Your task to perform on an android device: open a new tab in the chrome app Image 0: 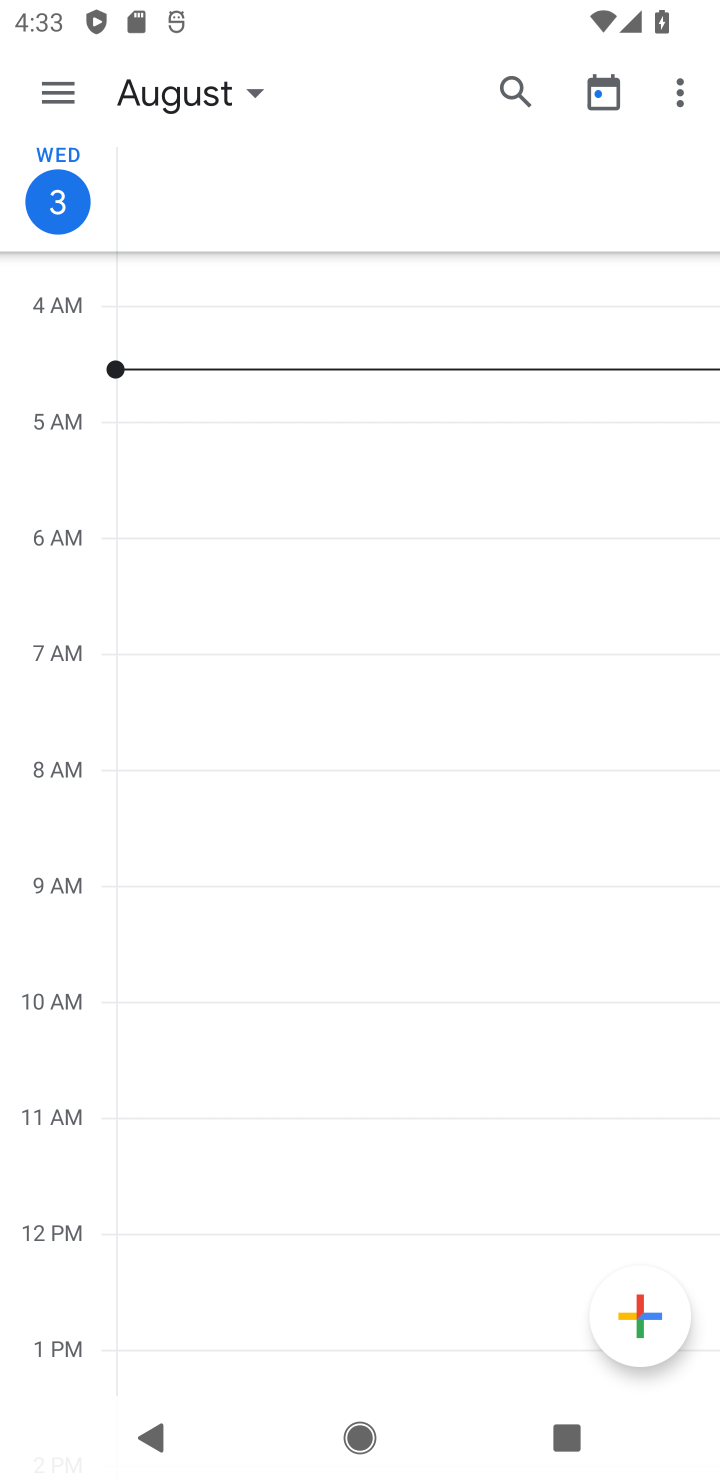
Step 0: press home button
Your task to perform on an android device: open a new tab in the chrome app Image 1: 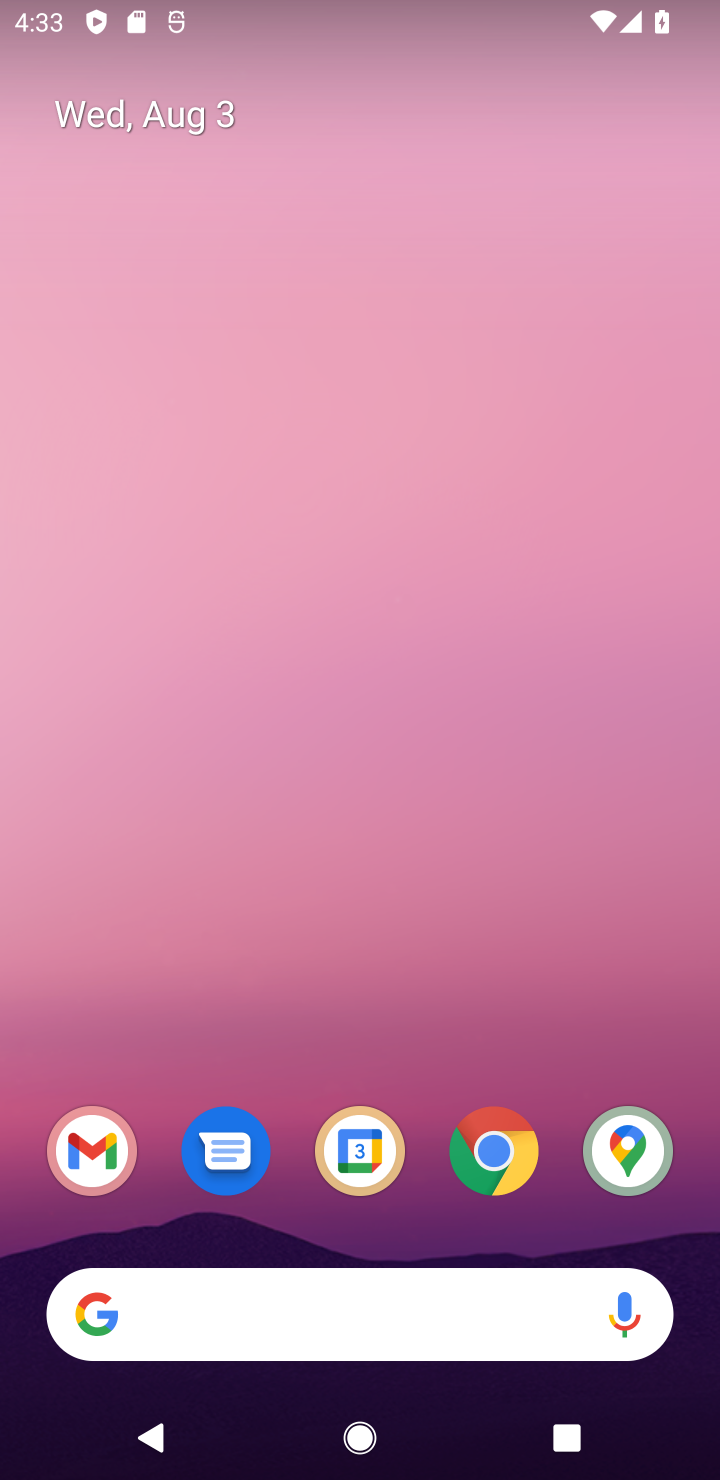
Step 1: click (476, 1153)
Your task to perform on an android device: open a new tab in the chrome app Image 2: 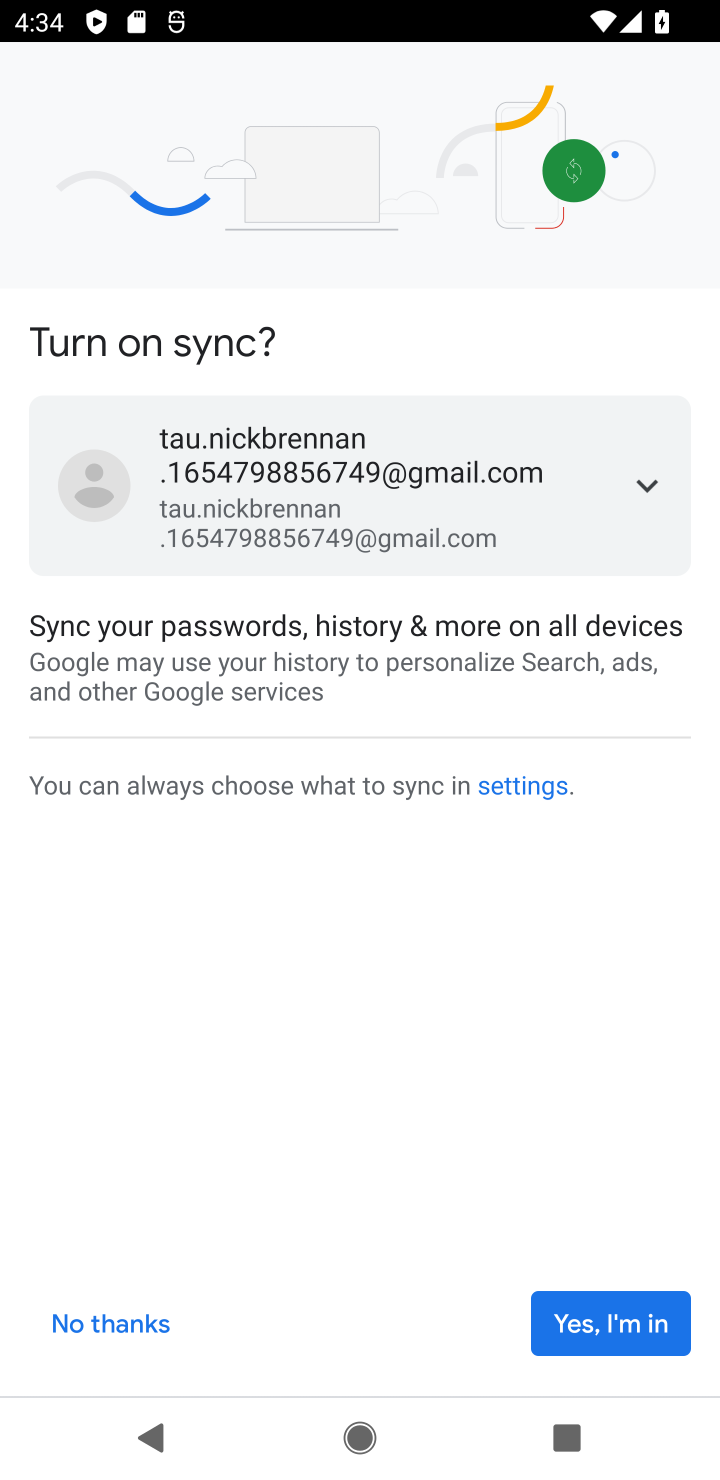
Step 2: click (590, 1304)
Your task to perform on an android device: open a new tab in the chrome app Image 3: 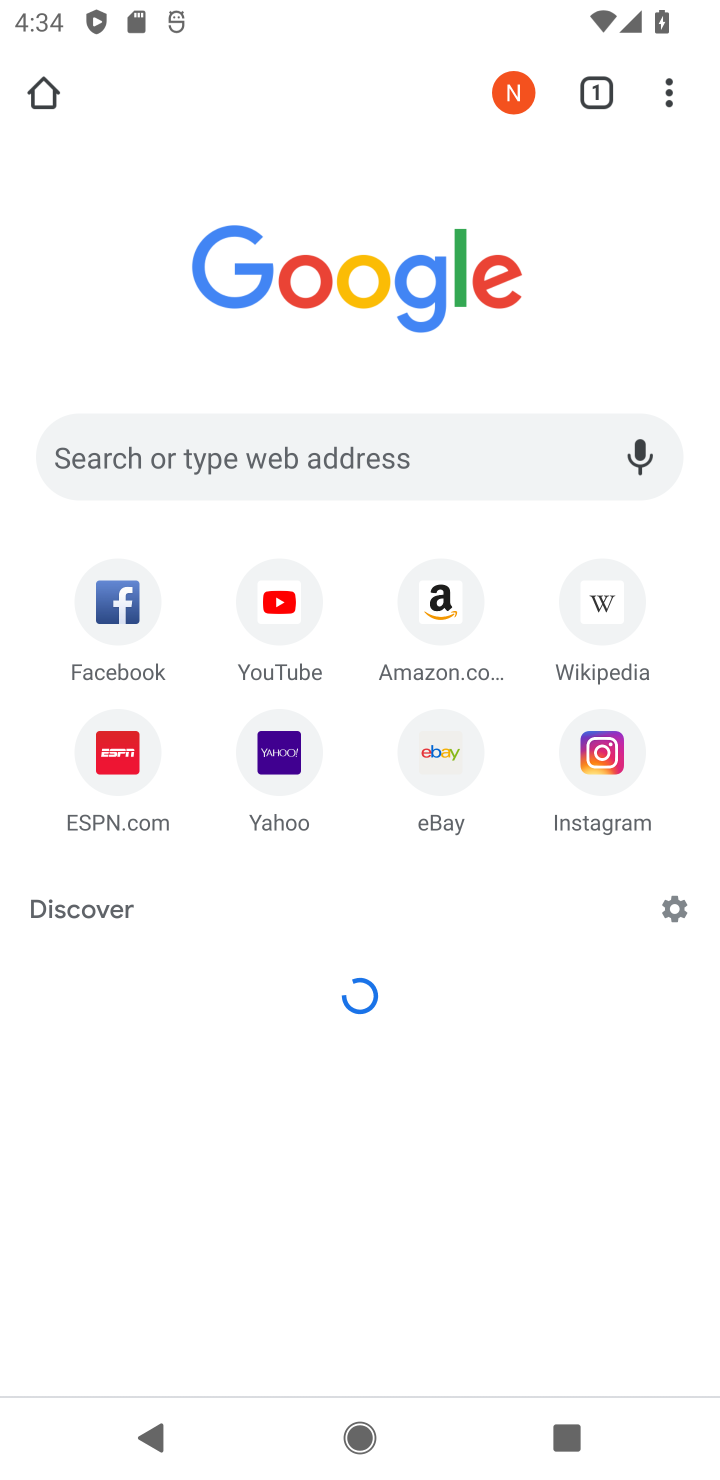
Step 3: click (660, 94)
Your task to perform on an android device: open a new tab in the chrome app Image 4: 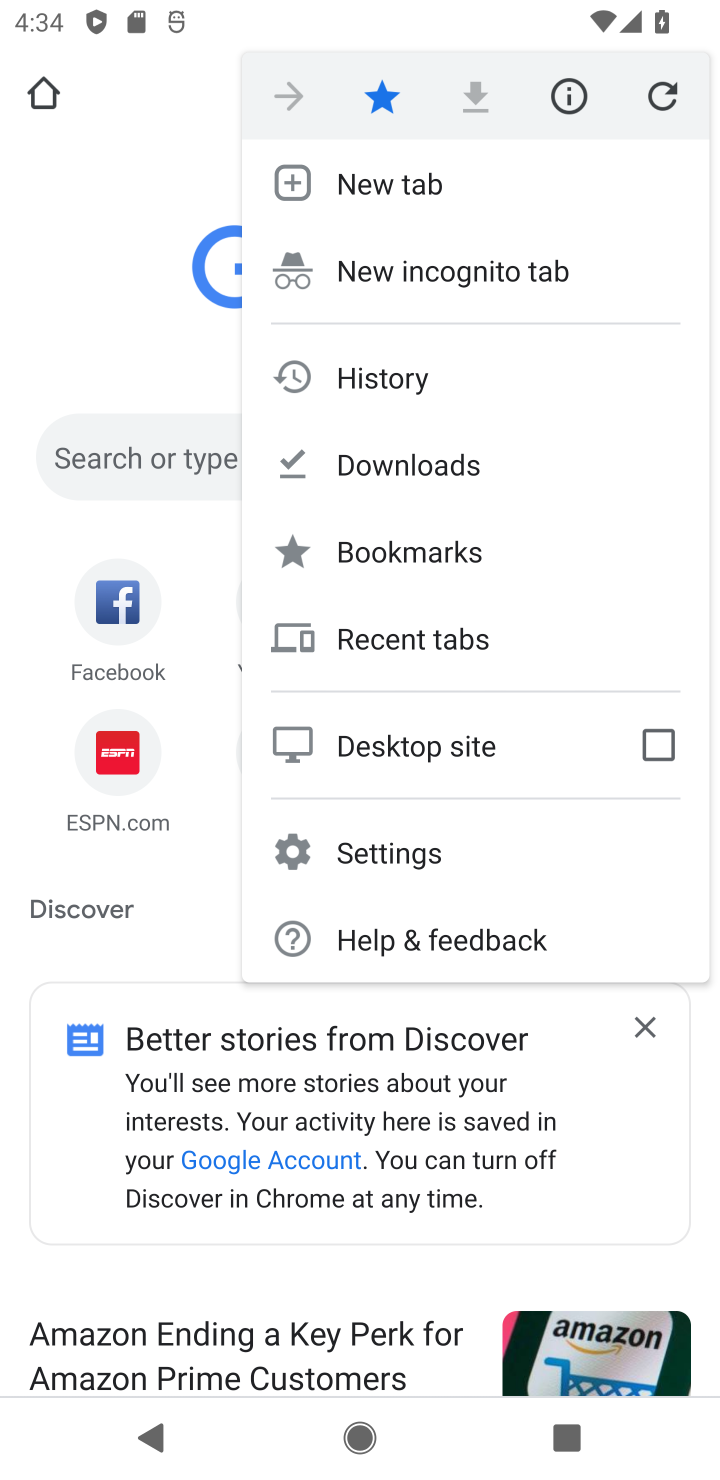
Step 4: click (425, 180)
Your task to perform on an android device: open a new tab in the chrome app Image 5: 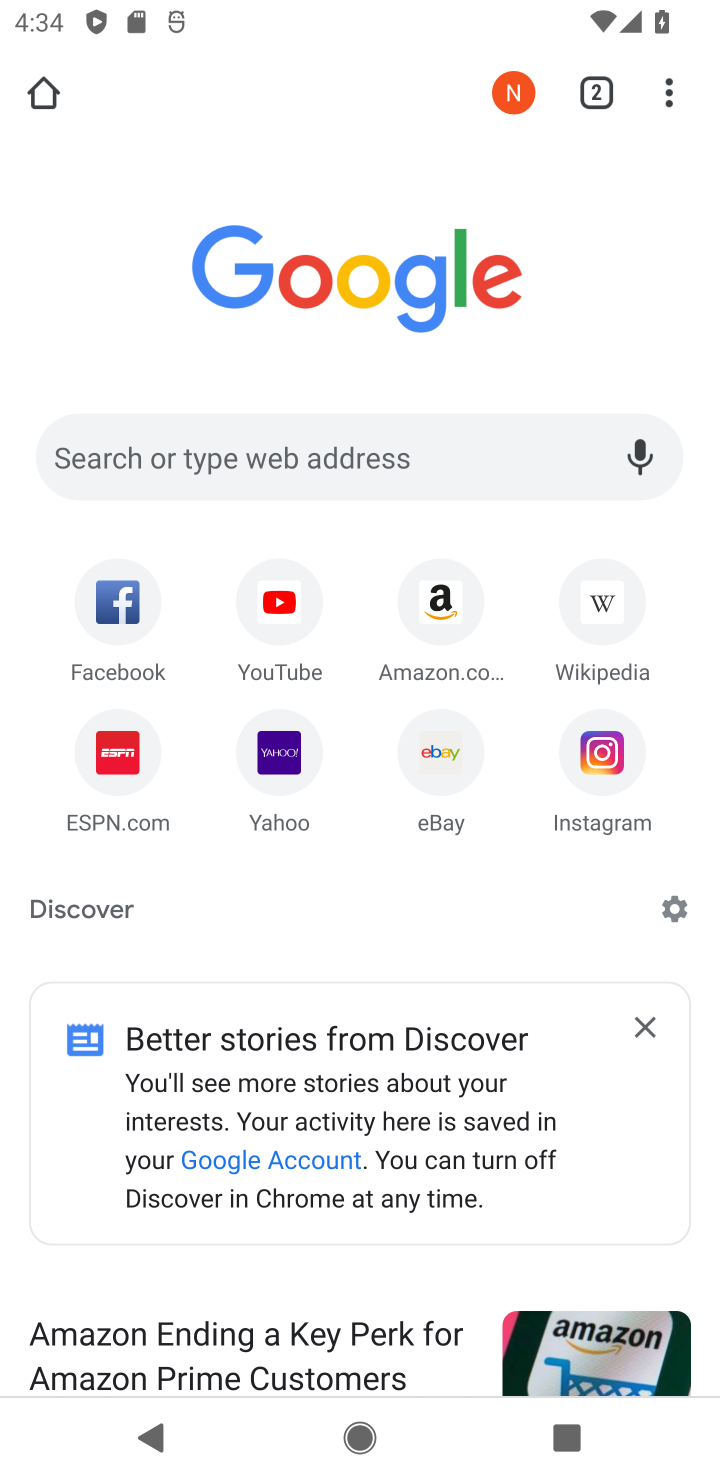
Step 5: task complete